Your task to perform on an android device: check the backup settings in the google photos Image 0: 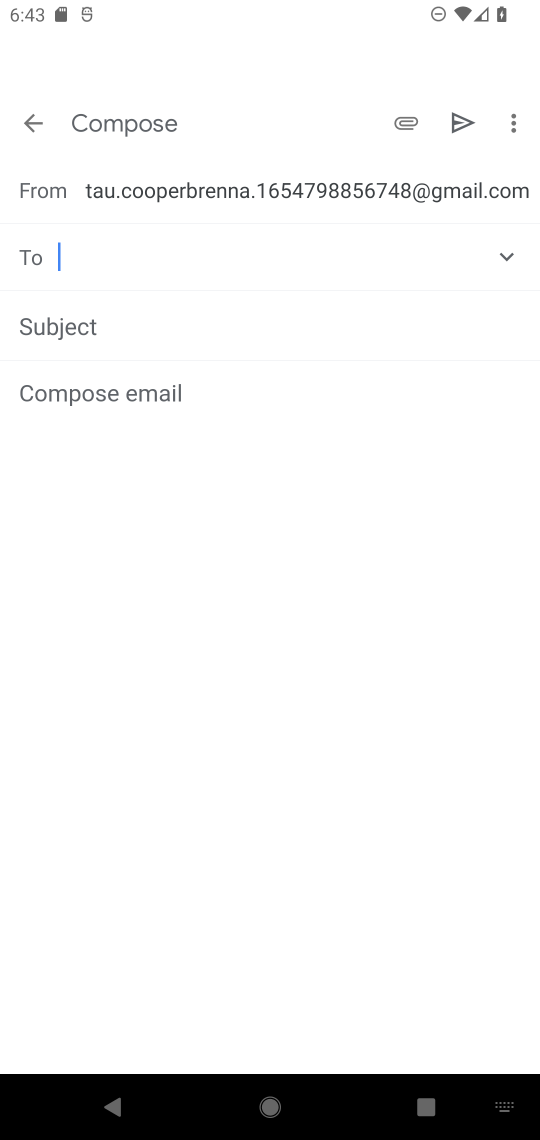
Step 0: press home button
Your task to perform on an android device: check the backup settings in the google photos Image 1: 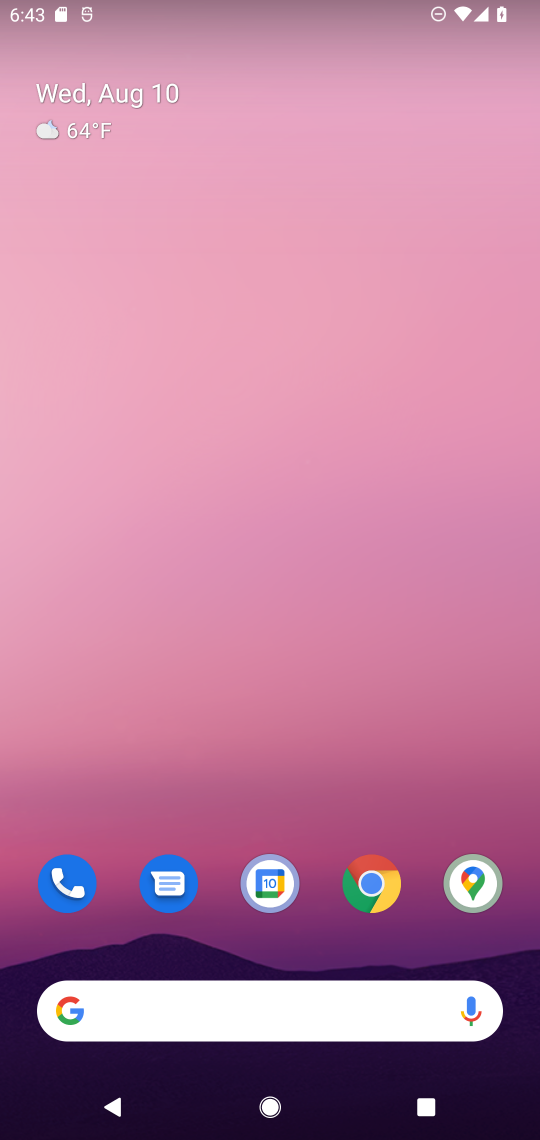
Step 1: drag from (388, 913) to (507, 122)
Your task to perform on an android device: check the backup settings in the google photos Image 2: 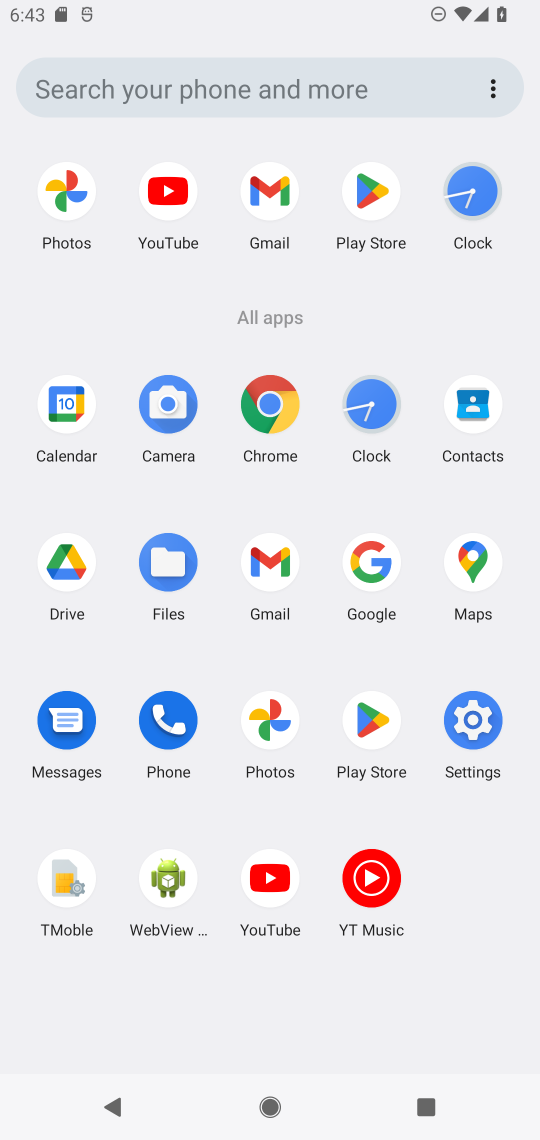
Step 2: click (263, 716)
Your task to perform on an android device: check the backup settings in the google photos Image 3: 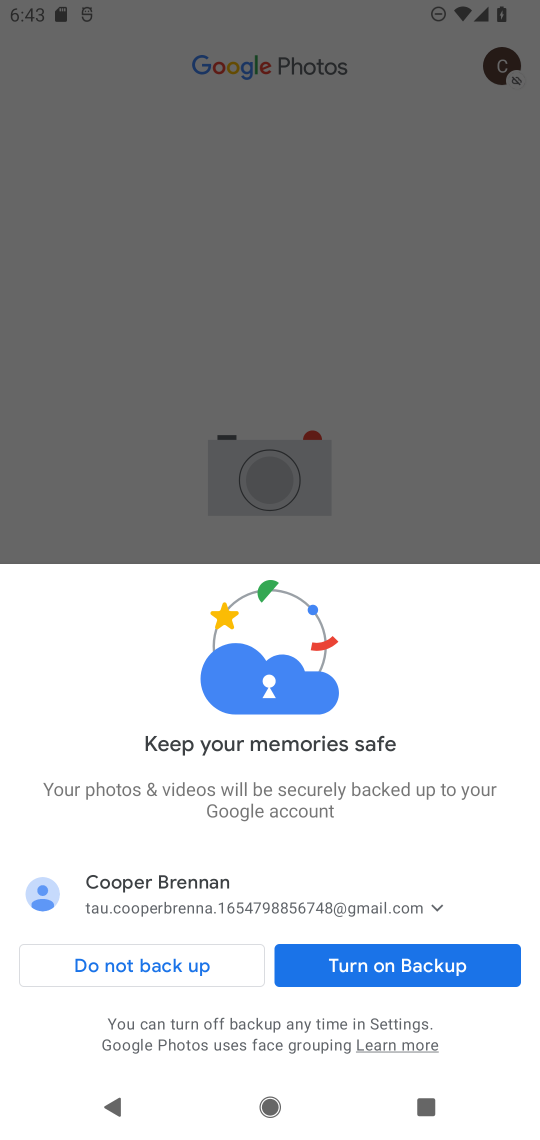
Step 3: click (403, 973)
Your task to perform on an android device: check the backup settings in the google photos Image 4: 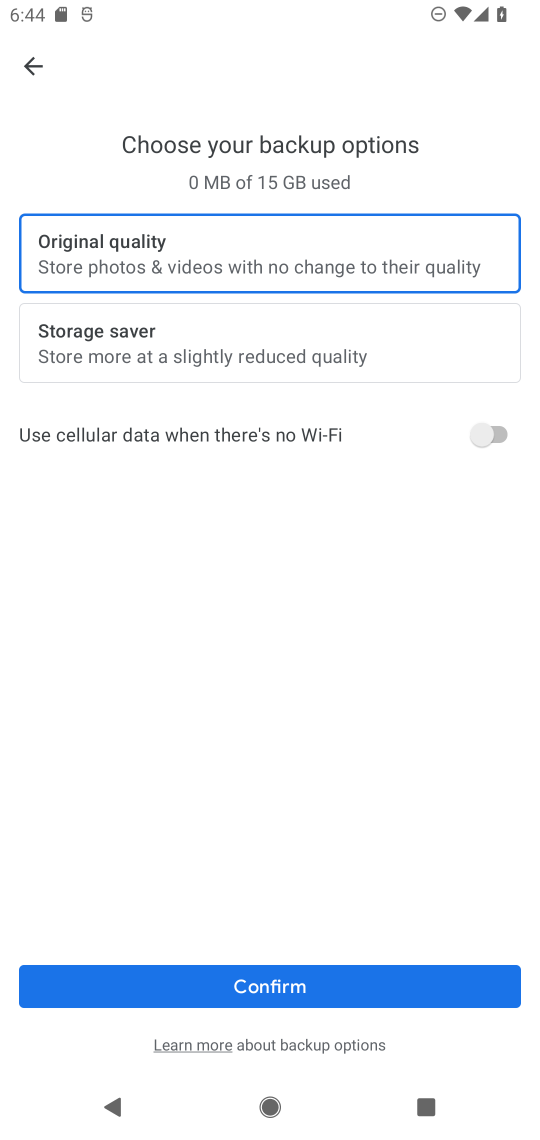
Step 4: click (360, 987)
Your task to perform on an android device: check the backup settings in the google photos Image 5: 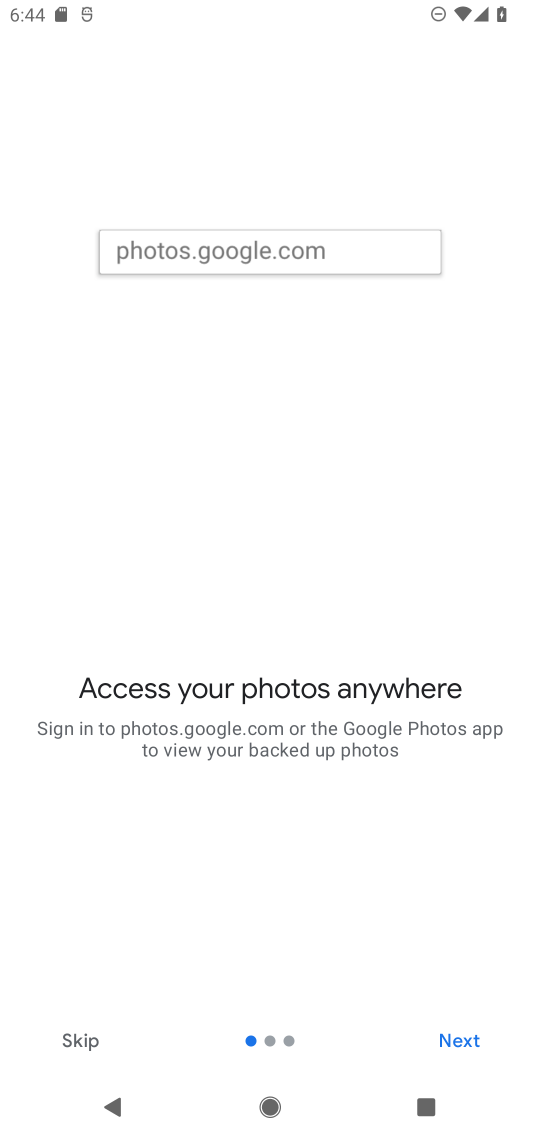
Step 5: click (440, 1039)
Your task to perform on an android device: check the backup settings in the google photos Image 6: 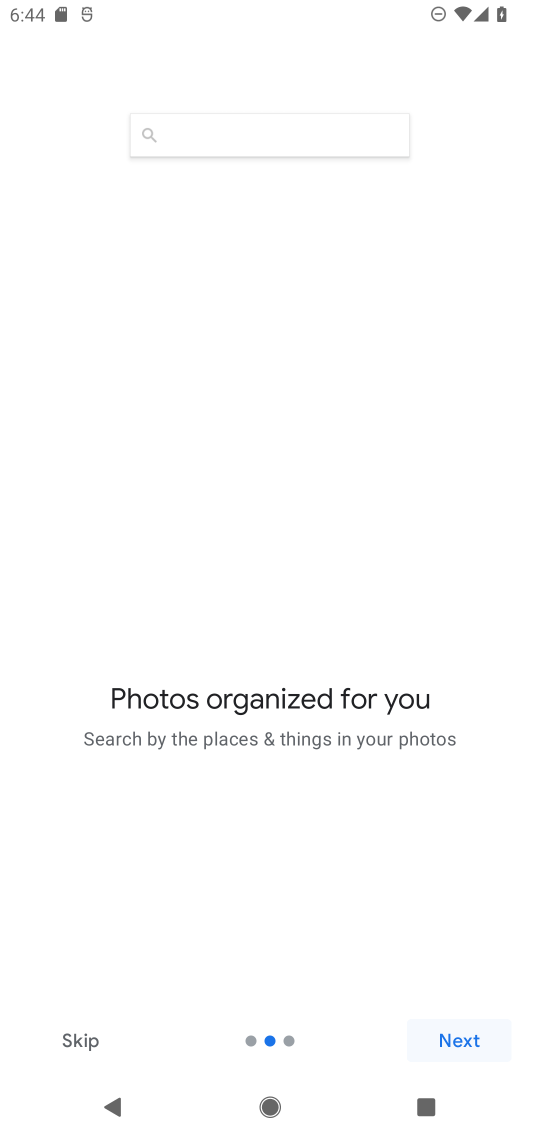
Step 6: click (440, 1039)
Your task to perform on an android device: check the backup settings in the google photos Image 7: 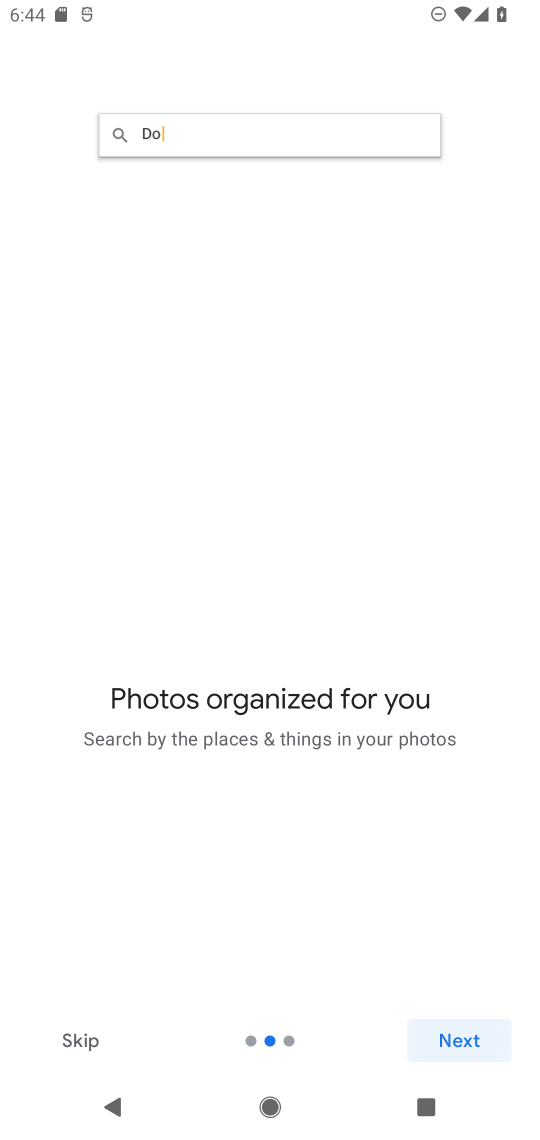
Step 7: click (440, 1039)
Your task to perform on an android device: check the backup settings in the google photos Image 8: 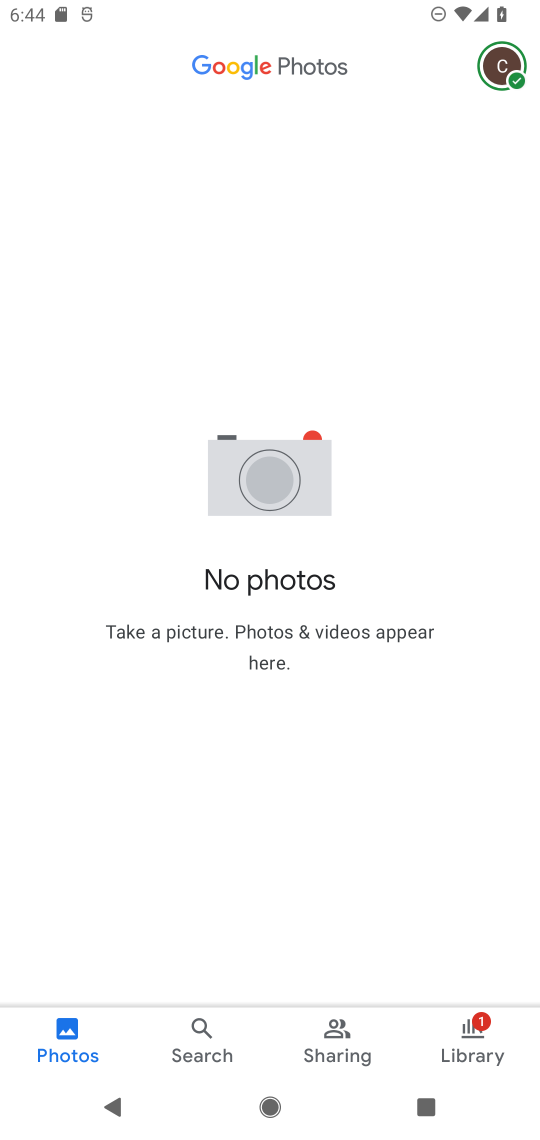
Step 8: click (507, 56)
Your task to perform on an android device: check the backup settings in the google photos Image 9: 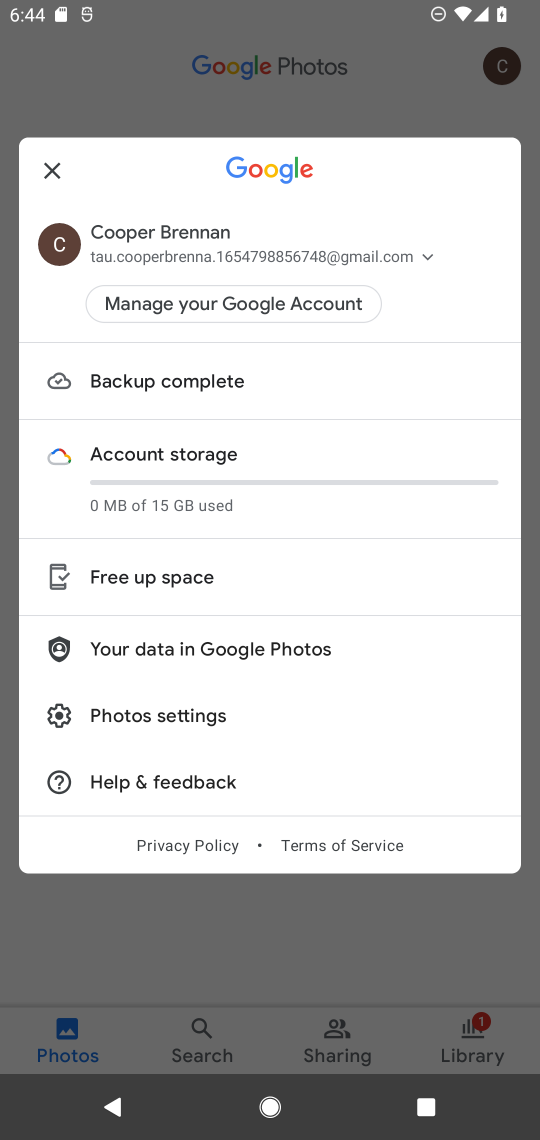
Step 9: click (184, 716)
Your task to perform on an android device: check the backup settings in the google photos Image 10: 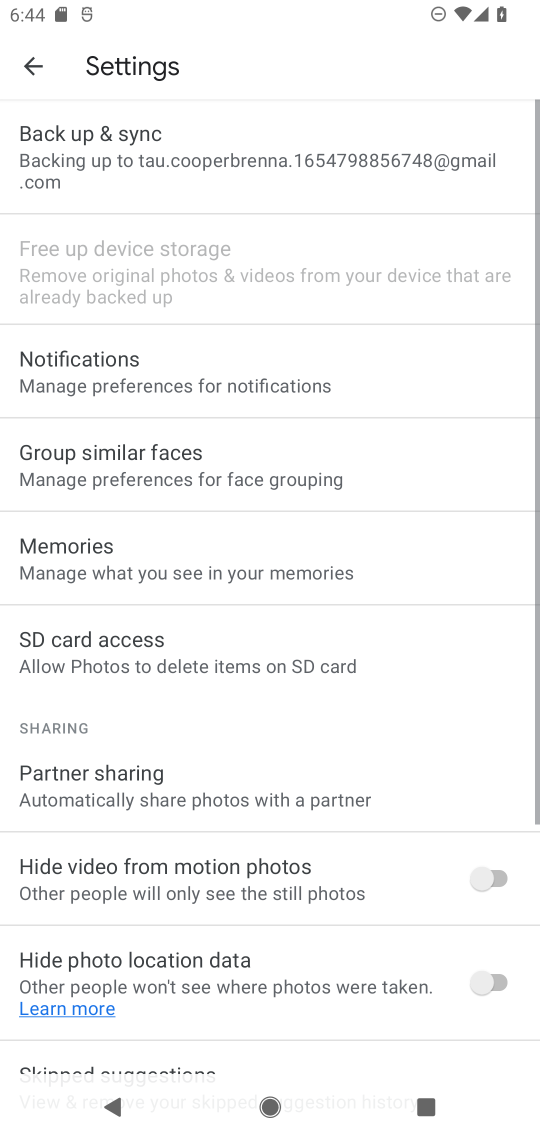
Step 10: click (118, 159)
Your task to perform on an android device: check the backup settings in the google photos Image 11: 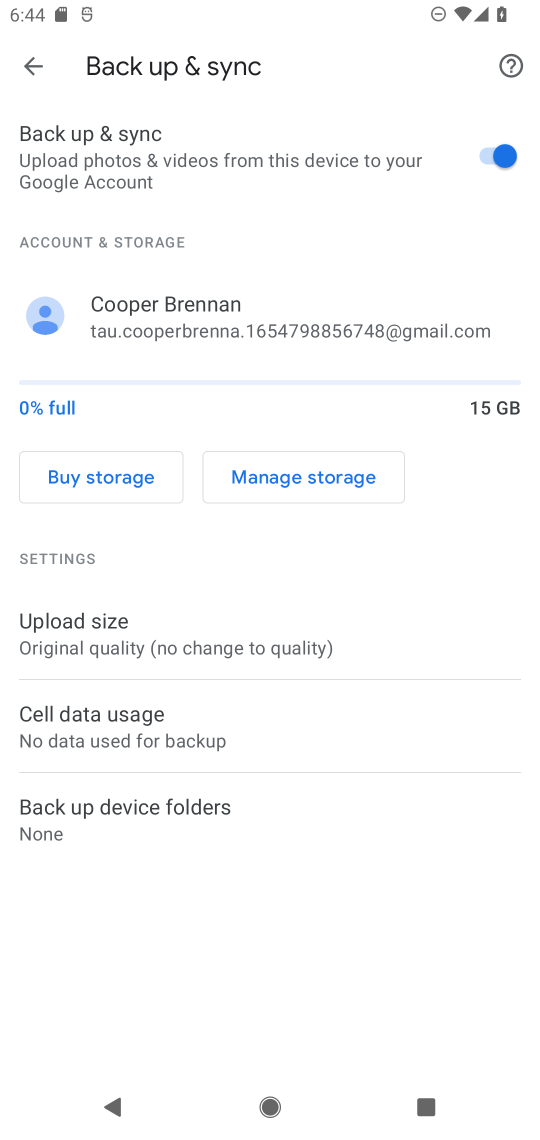
Step 11: task complete